Your task to perform on an android device: Open wifi settings Image 0: 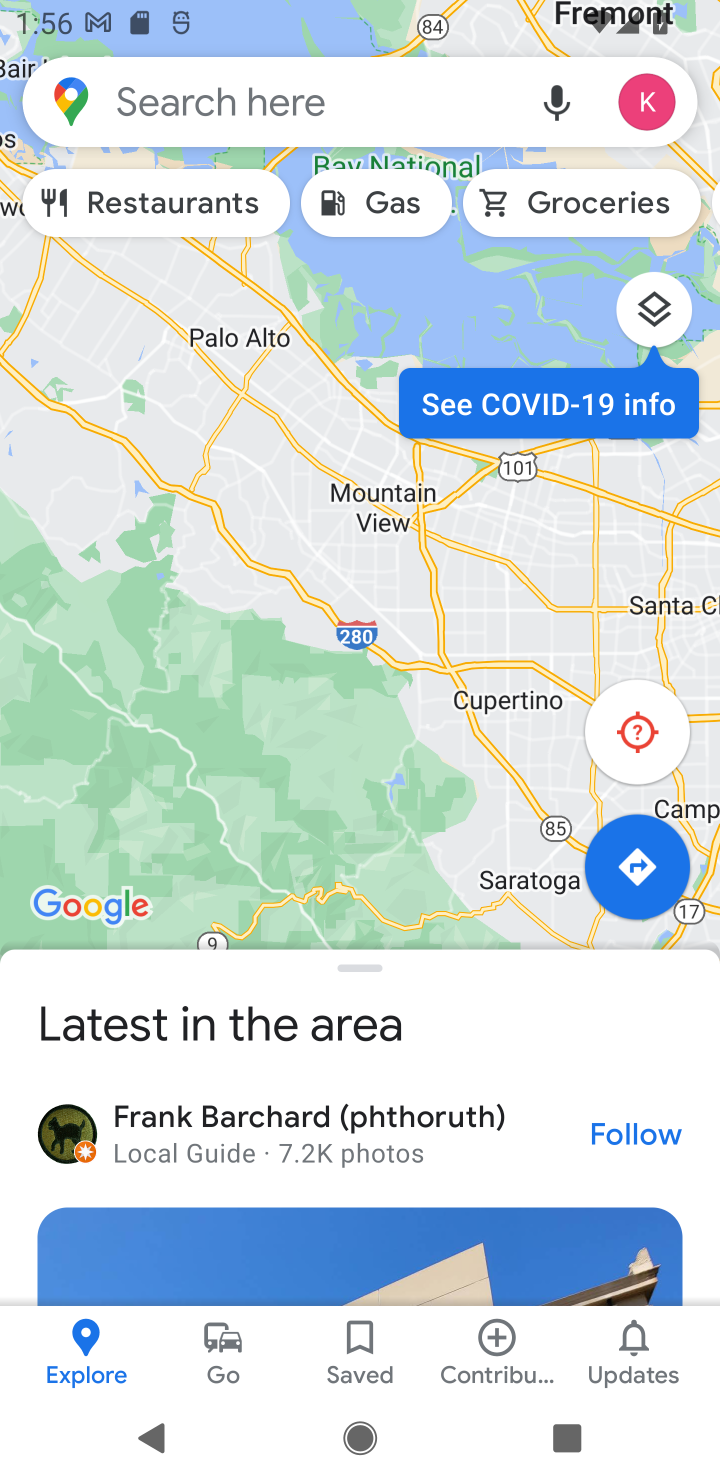
Step 0: press home button
Your task to perform on an android device: Open wifi settings Image 1: 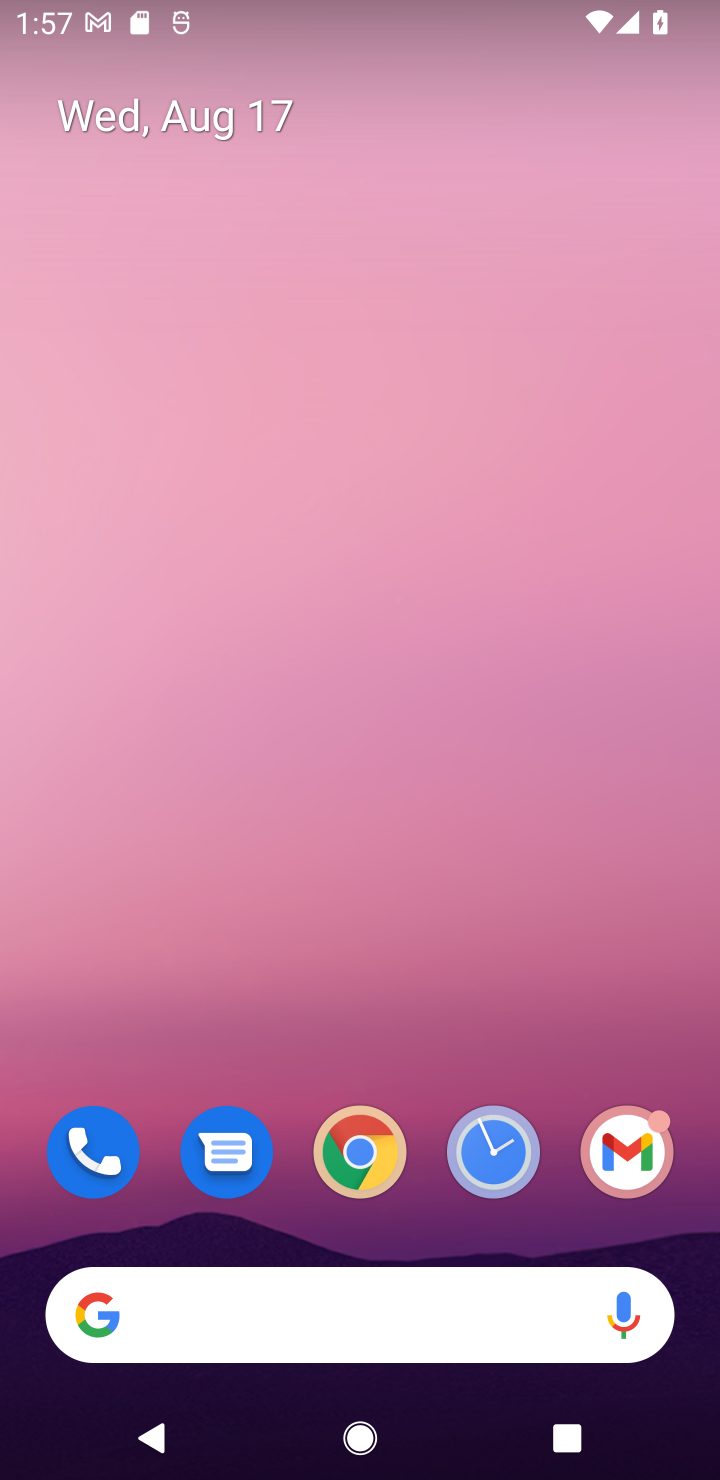
Step 1: drag from (699, 1241) to (377, 53)
Your task to perform on an android device: Open wifi settings Image 2: 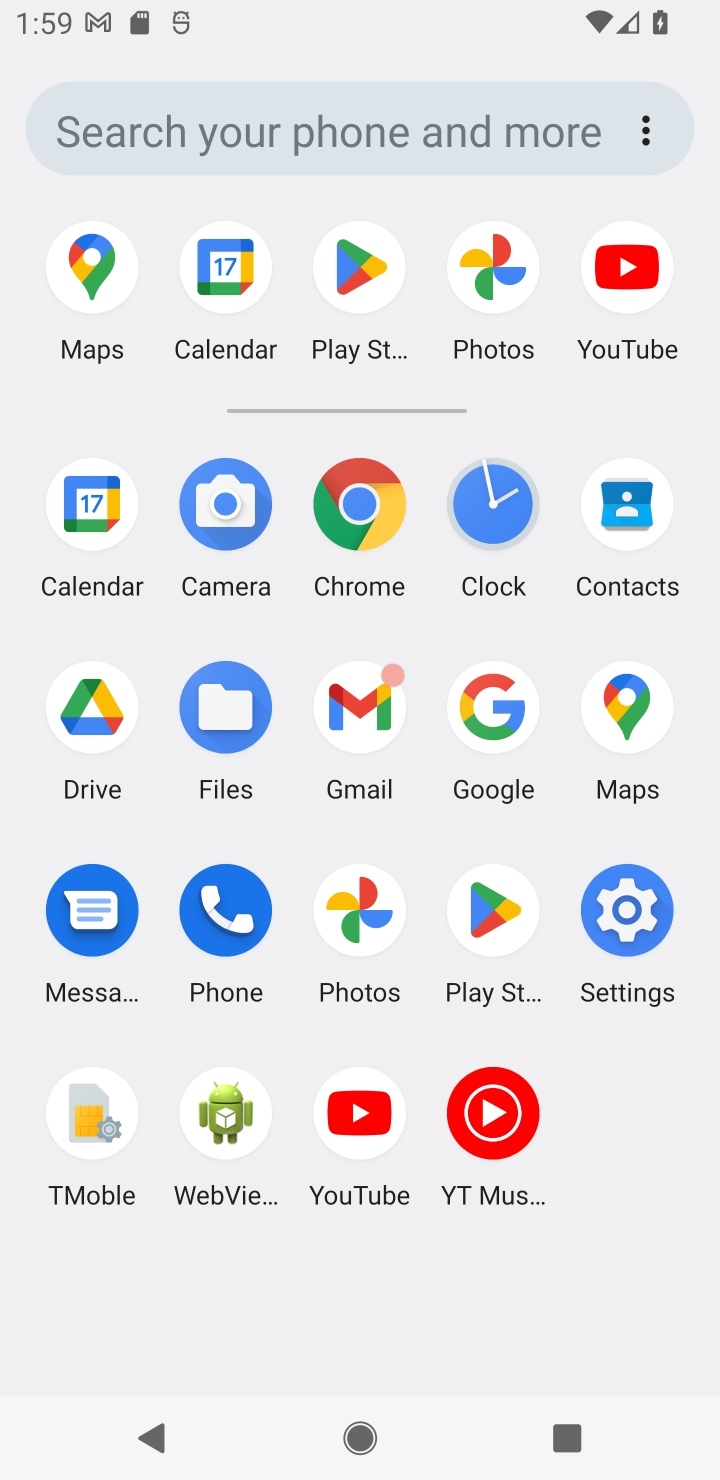
Step 2: click (627, 895)
Your task to perform on an android device: Open wifi settings Image 3: 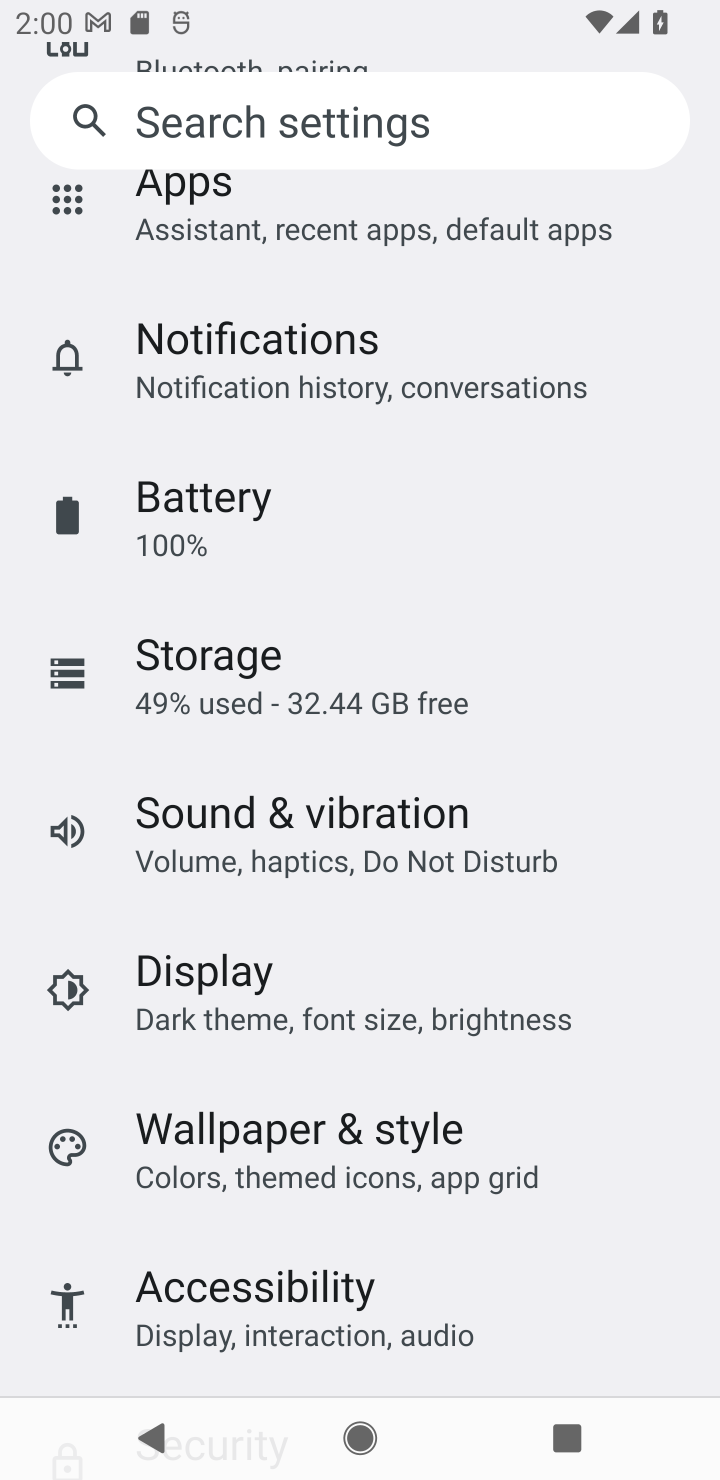
Step 3: drag from (397, 224) to (527, 1479)
Your task to perform on an android device: Open wifi settings Image 4: 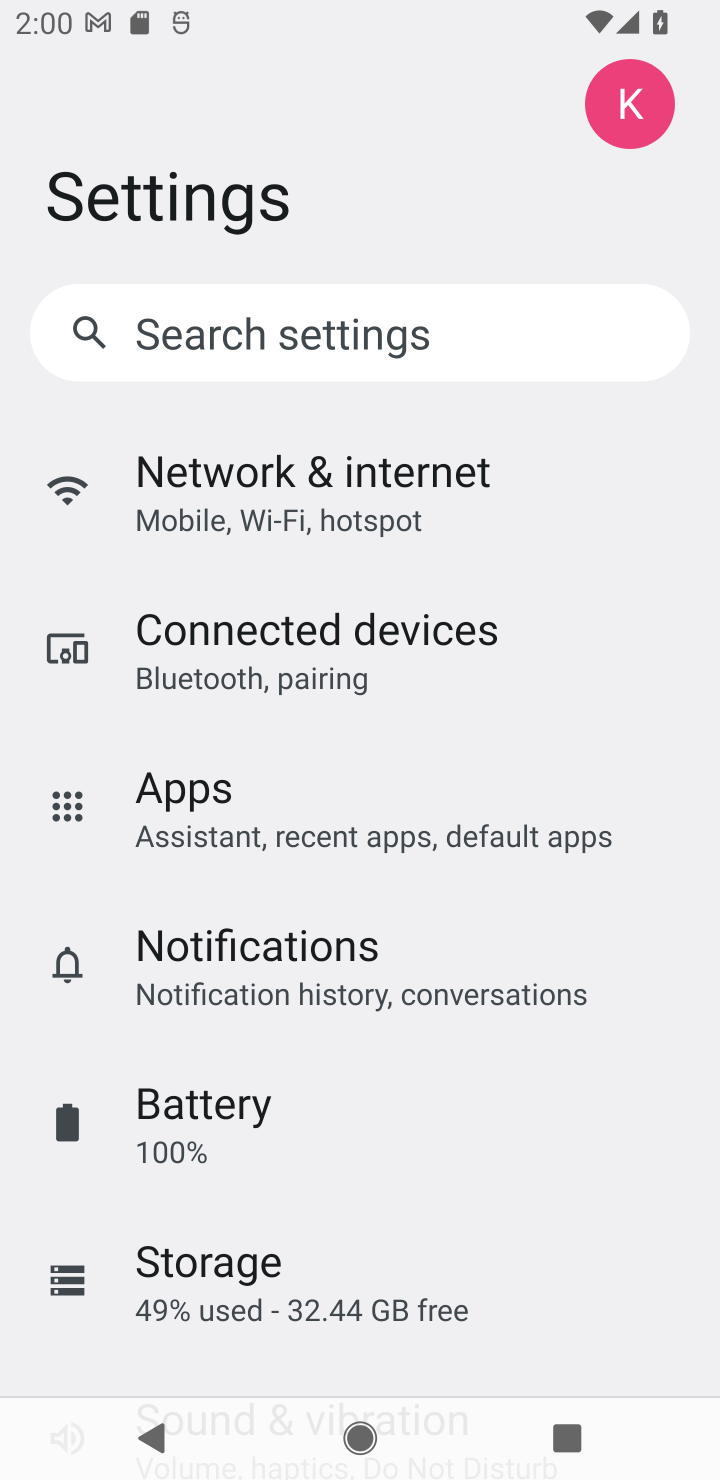
Step 4: click (276, 507)
Your task to perform on an android device: Open wifi settings Image 5: 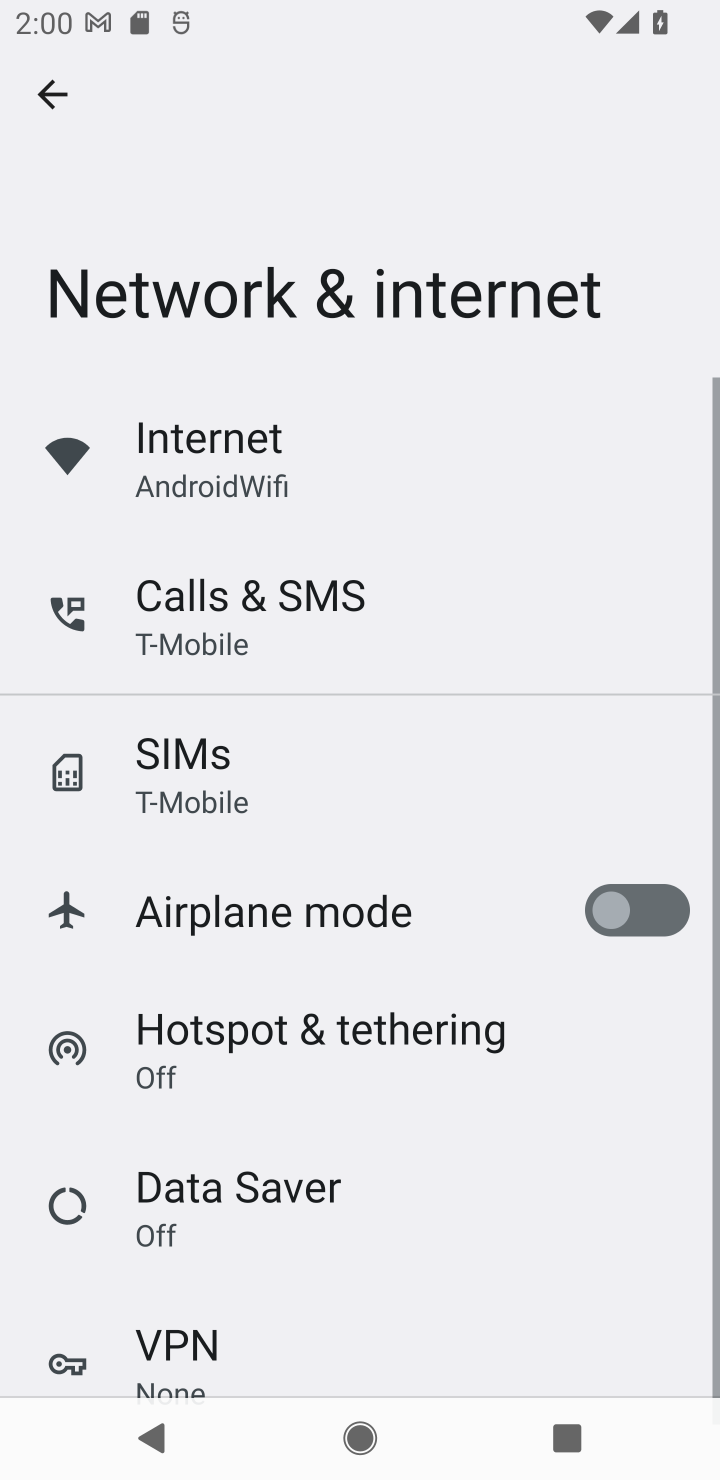
Step 5: click (218, 477)
Your task to perform on an android device: Open wifi settings Image 6: 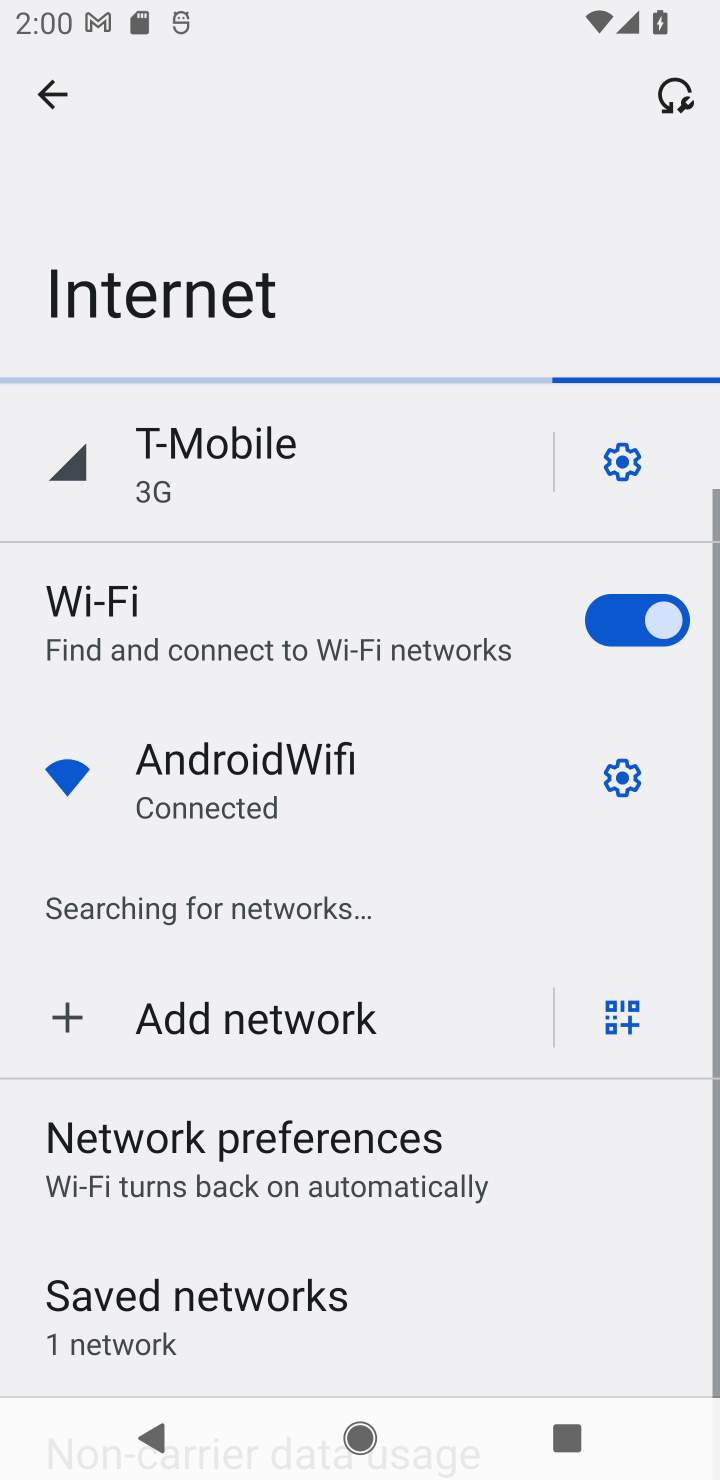
Step 6: click (452, 769)
Your task to perform on an android device: Open wifi settings Image 7: 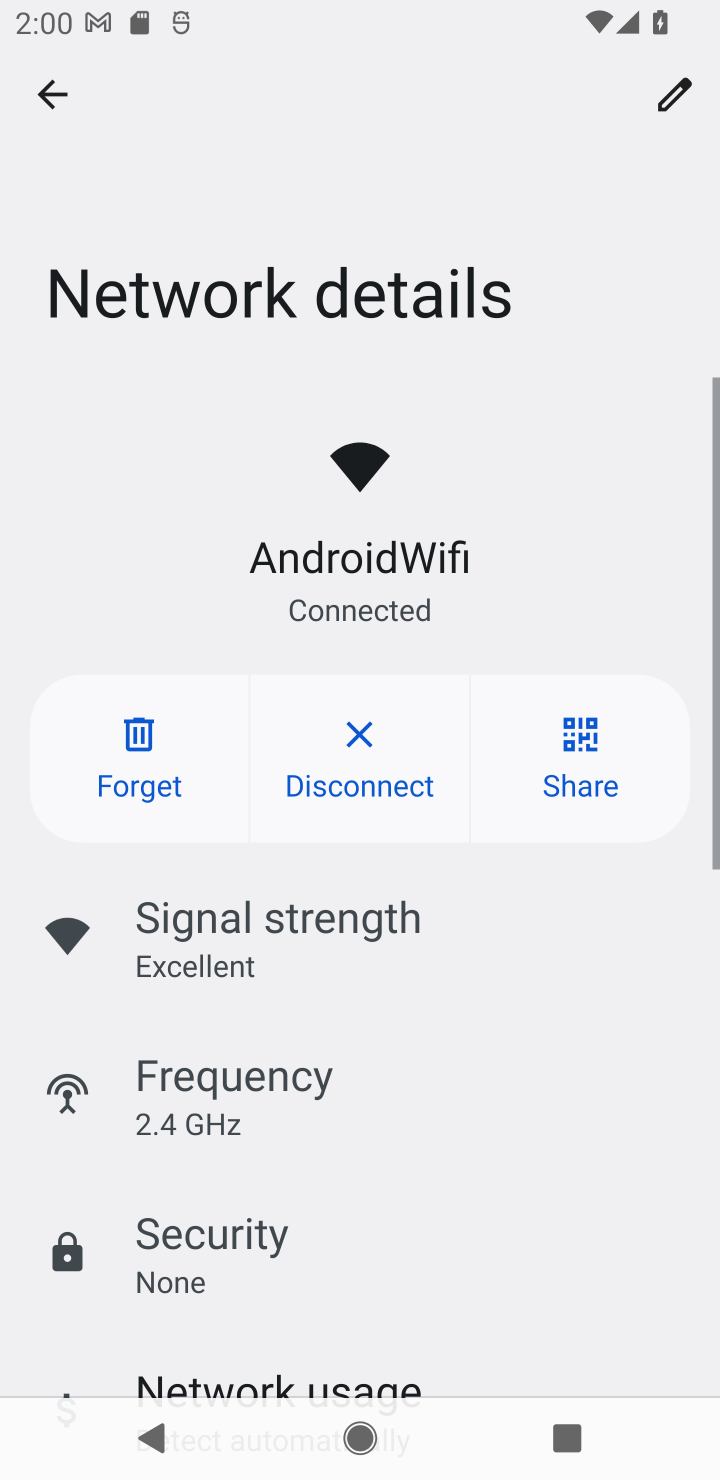
Step 7: task complete